Your task to perform on an android device: open a new tab in the chrome app Image 0: 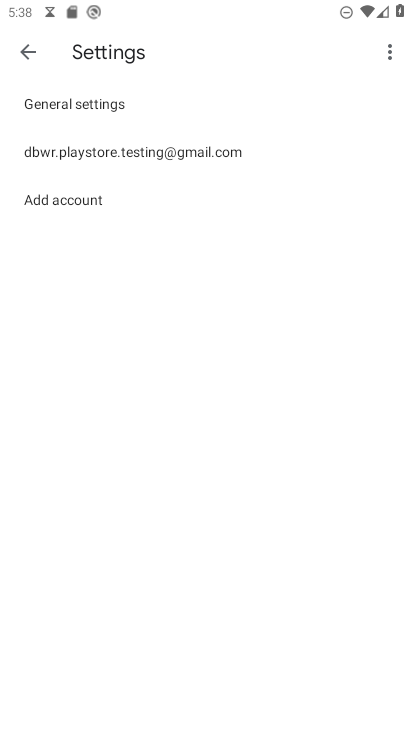
Step 0: drag from (314, 580) to (231, 65)
Your task to perform on an android device: open a new tab in the chrome app Image 1: 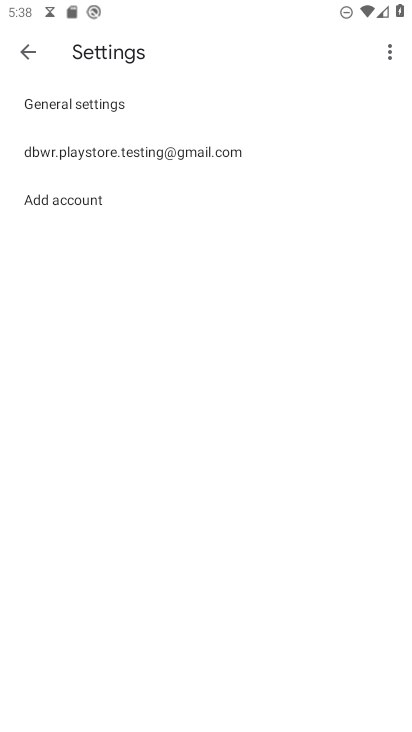
Step 1: press home button
Your task to perform on an android device: open a new tab in the chrome app Image 2: 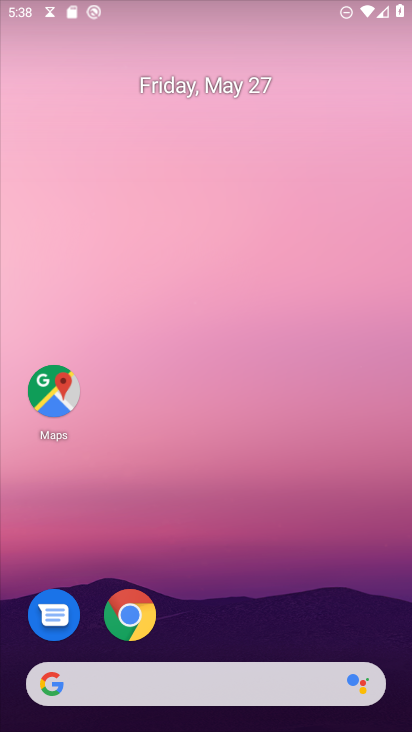
Step 2: click (144, 616)
Your task to perform on an android device: open a new tab in the chrome app Image 3: 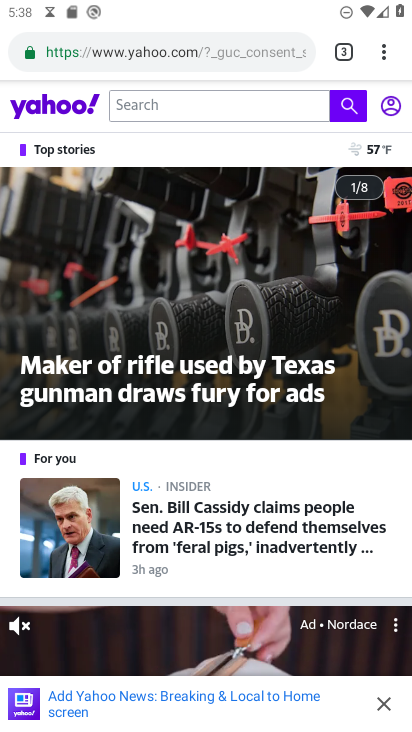
Step 3: click (381, 56)
Your task to perform on an android device: open a new tab in the chrome app Image 4: 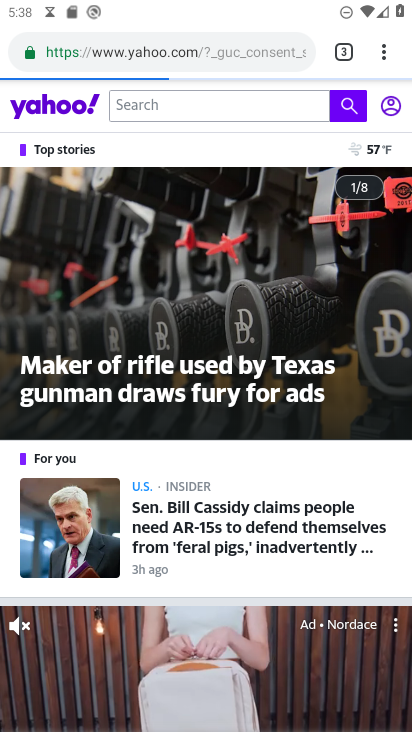
Step 4: click (335, 49)
Your task to perform on an android device: open a new tab in the chrome app Image 5: 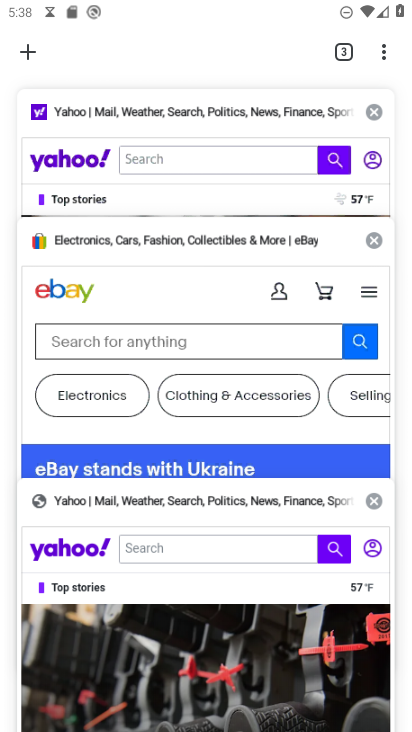
Step 5: click (24, 53)
Your task to perform on an android device: open a new tab in the chrome app Image 6: 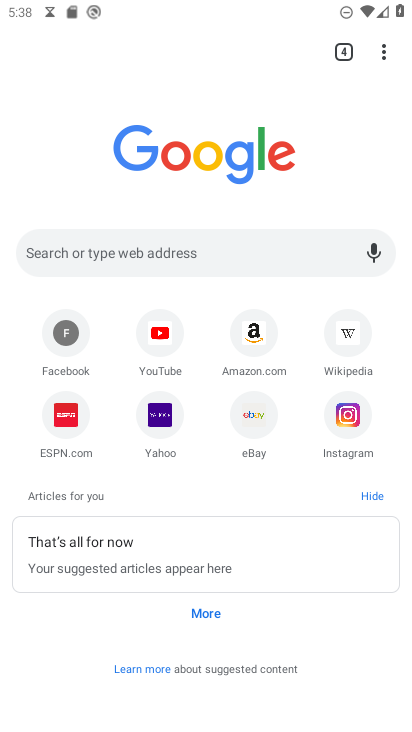
Step 6: task complete